Your task to perform on an android device: set default search engine in the chrome app Image 0: 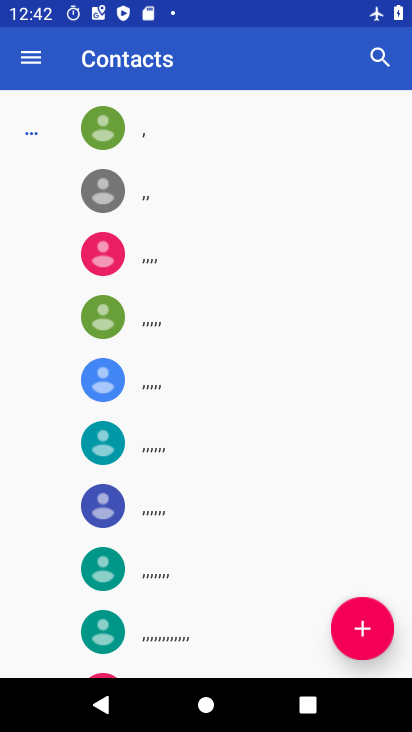
Step 0: press home button
Your task to perform on an android device: set default search engine in the chrome app Image 1: 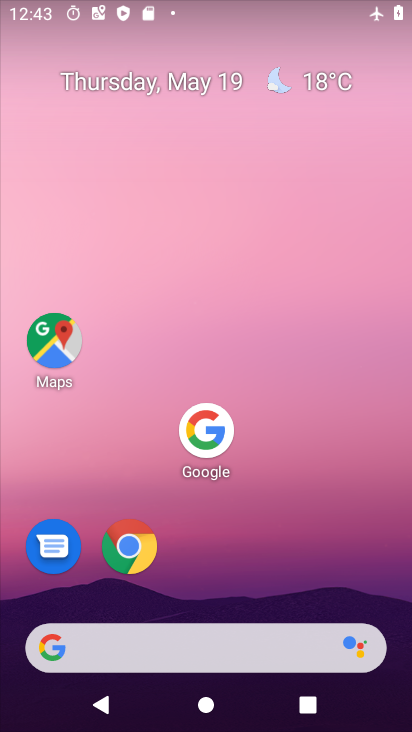
Step 1: drag from (224, 570) to (237, 70)
Your task to perform on an android device: set default search engine in the chrome app Image 2: 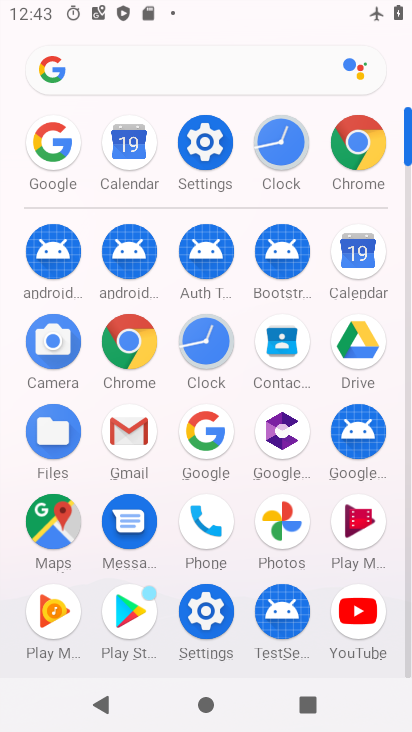
Step 2: click (362, 145)
Your task to perform on an android device: set default search engine in the chrome app Image 3: 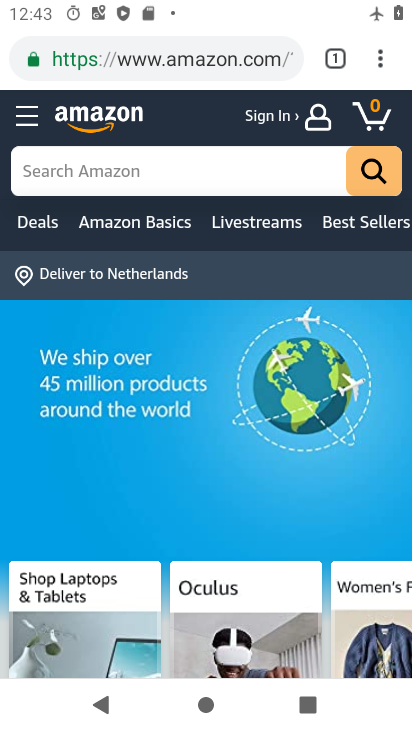
Step 3: click (374, 60)
Your task to perform on an android device: set default search engine in the chrome app Image 4: 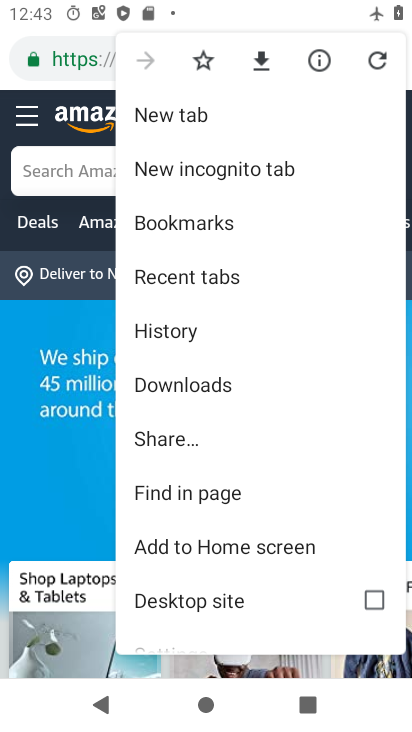
Step 4: drag from (266, 571) to (258, 214)
Your task to perform on an android device: set default search engine in the chrome app Image 5: 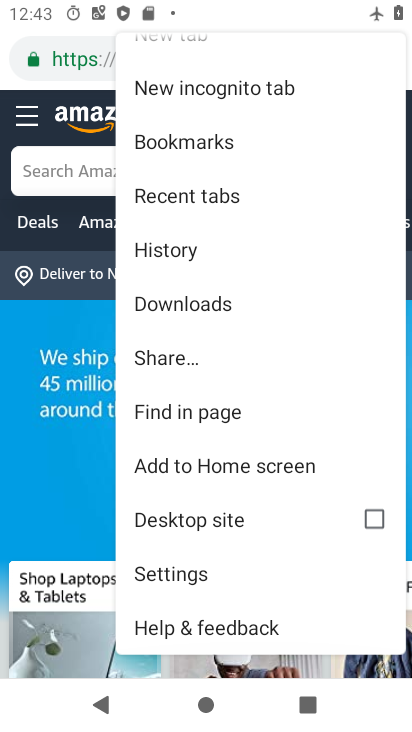
Step 5: click (179, 562)
Your task to perform on an android device: set default search engine in the chrome app Image 6: 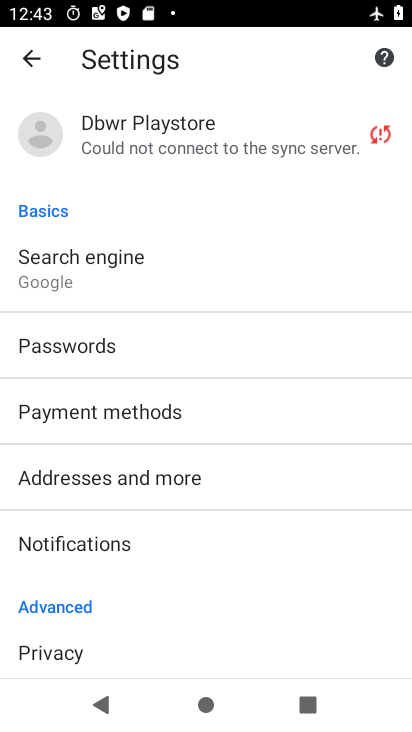
Step 6: drag from (168, 548) to (129, 283)
Your task to perform on an android device: set default search engine in the chrome app Image 7: 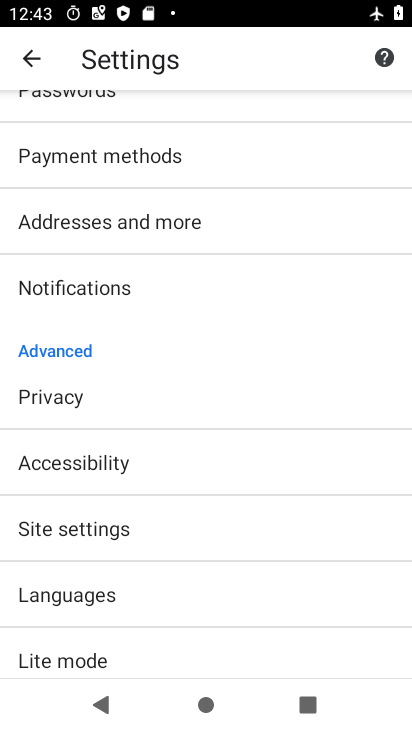
Step 7: drag from (150, 586) to (141, 301)
Your task to perform on an android device: set default search engine in the chrome app Image 8: 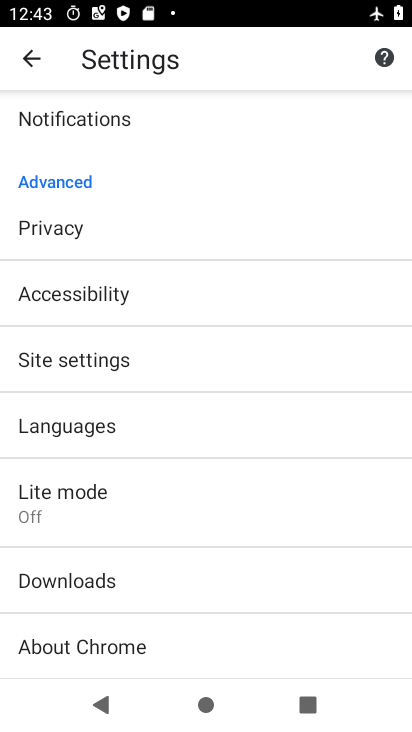
Step 8: drag from (108, 230) to (172, 593)
Your task to perform on an android device: set default search engine in the chrome app Image 9: 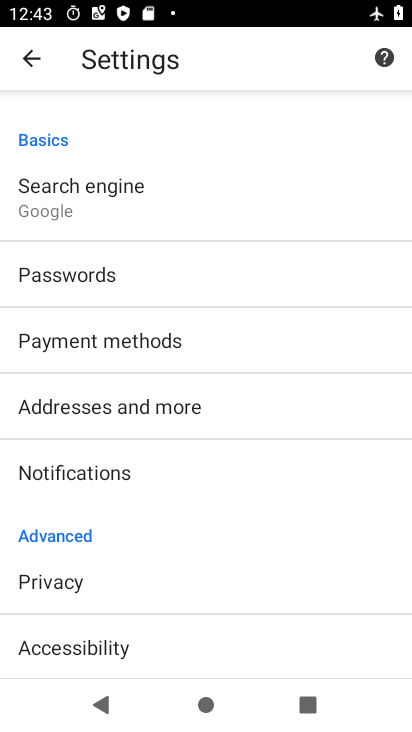
Step 9: click (95, 208)
Your task to perform on an android device: set default search engine in the chrome app Image 10: 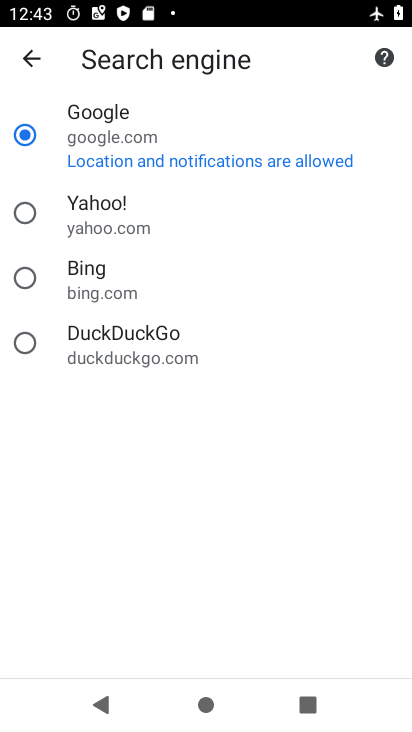
Step 10: click (27, 207)
Your task to perform on an android device: set default search engine in the chrome app Image 11: 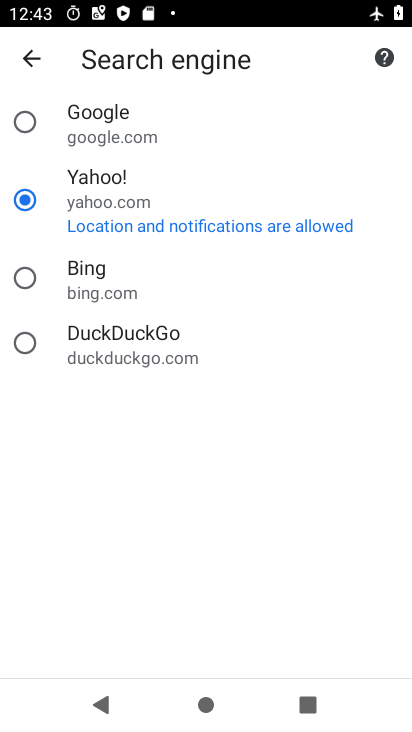
Step 11: task complete